Your task to perform on an android device: Show me the alarms in the clock app Image 0: 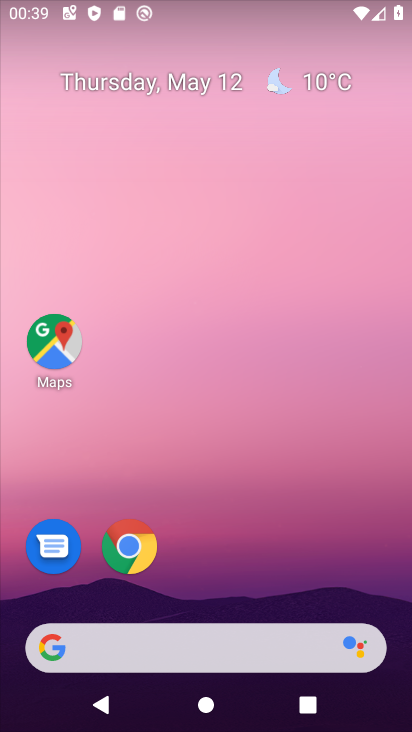
Step 0: drag from (197, 608) to (197, 235)
Your task to perform on an android device: Show me the alarms in the clock app Image 1: 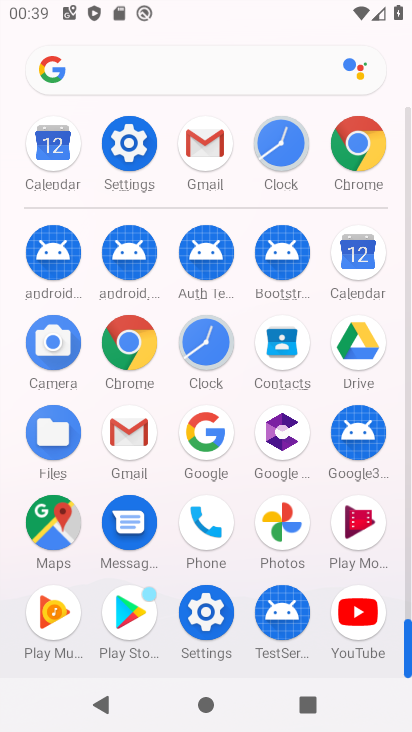
Step 1: click (200, 355)
Your task to perform on an android device: Show me the alarms in the clock app Image 2: 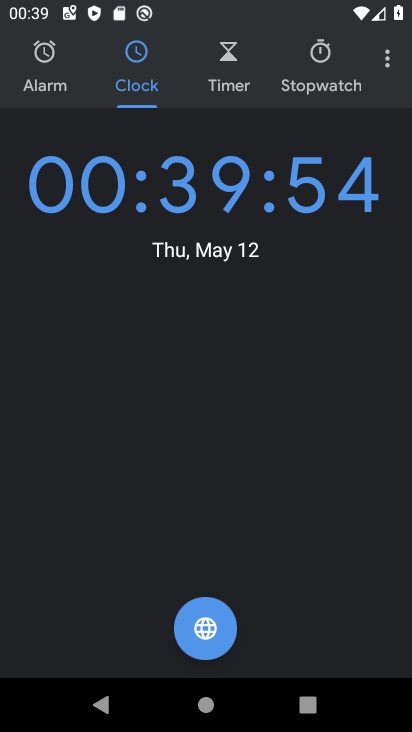
Step 2: click (46, 94)
Your task to perform on an android device: Show me the alarms in the clock app Image 3: 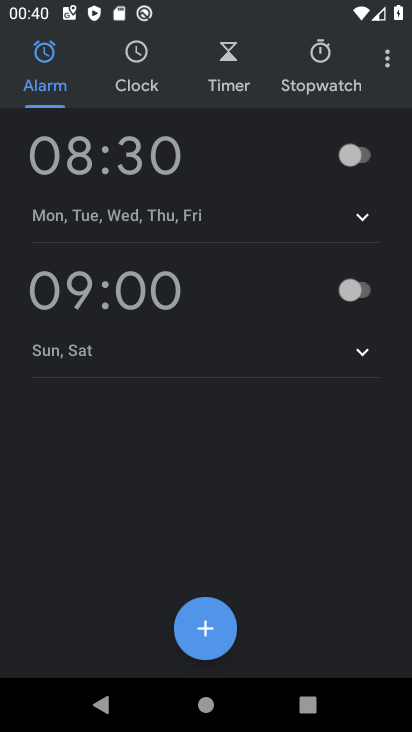
Step 3: task complete